Your task to perform on an android device: change the upload size in google photos Image 0: 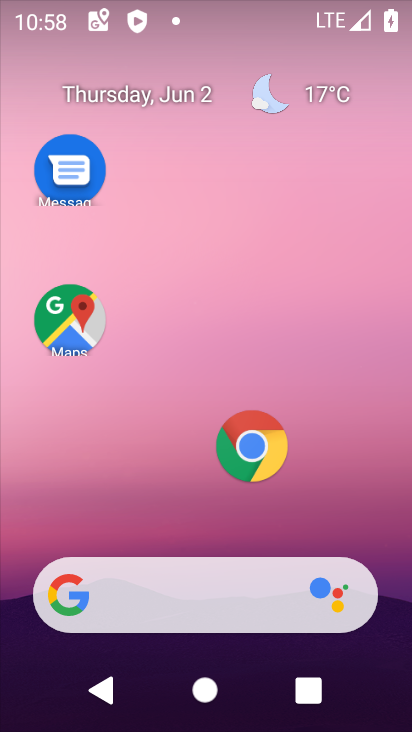
Step 0: press home button
Your task to perform on an android device: change the upload size in google photos Image 1: 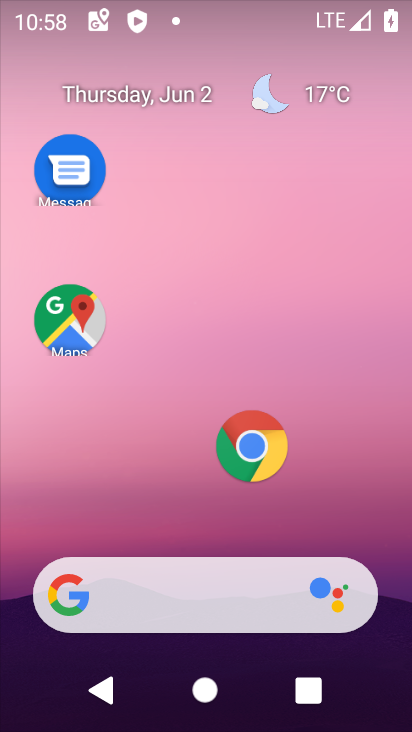
Step 1: drag from (359, 531) to (363, 57)
Your task to perform on an android device: change the upload size in google photos Image 2: 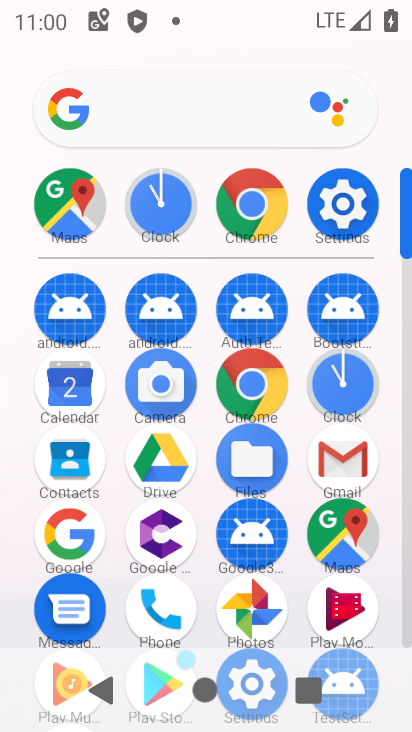
Step 2: click (270, 601)
Your task to perform on an android device: change the upload size in google photos Image 3: 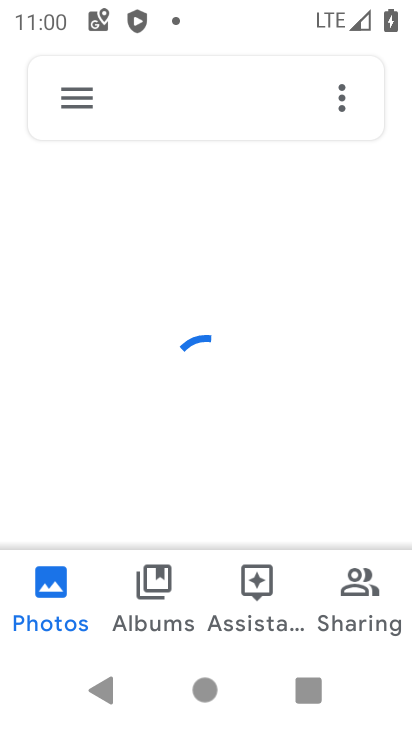
Step 3: click (159, 107)
Your task to perform on an android device: change the upload size in google photos Image 4: 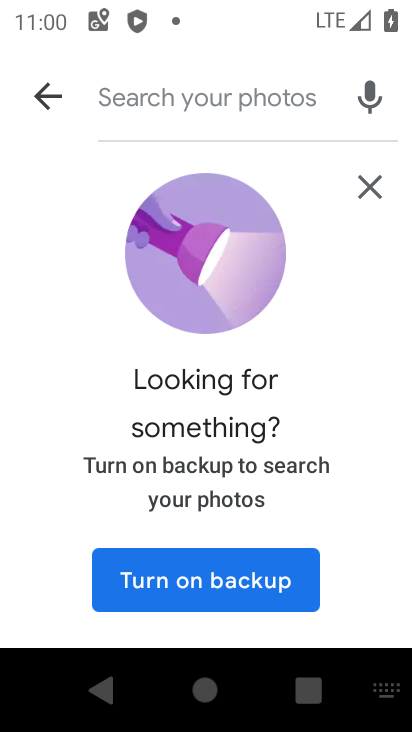
Step 4: click (364, 192)
Your task to perform on an android device: change the upload size in google photos Image 5: 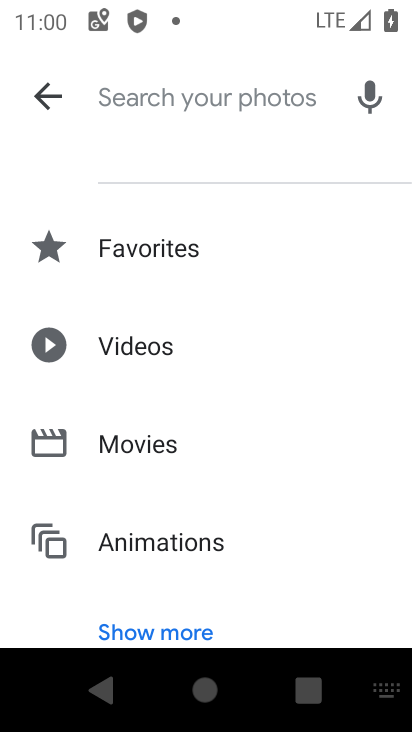
Step 5: click (63, 77)
Your task to perform on an android device: change the upload size in google photos Image 6: 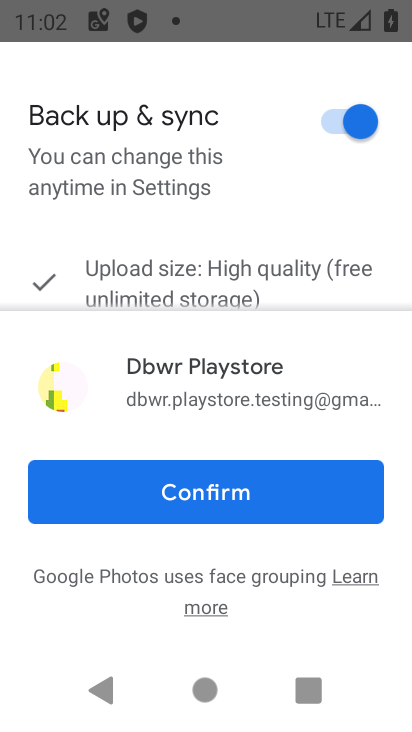
Step 6: click (50, 482)
Your task to perform on an android device: change the upload size in google photos Image 7: 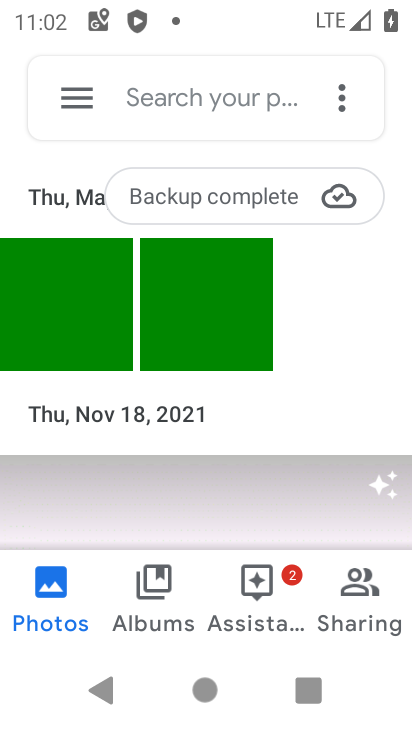
Step 7: click (75, 99)
Your task to perform on an android device: change the upload size in google photos Image 8: 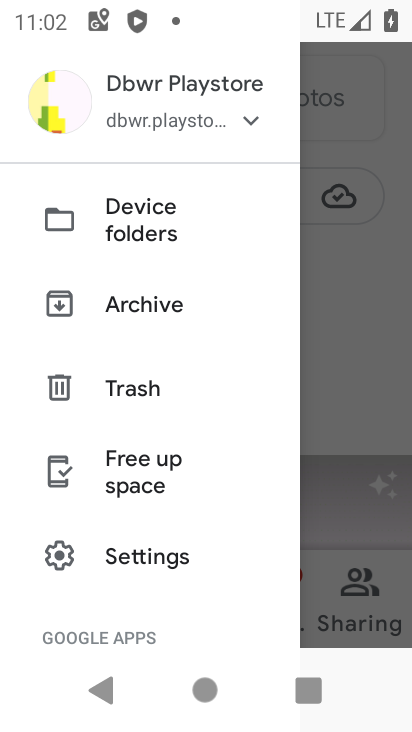
Step 8: drag from (127, 427) to (186, 68)
Your task to perform on an android device: change the upload size in google photos Image 9: 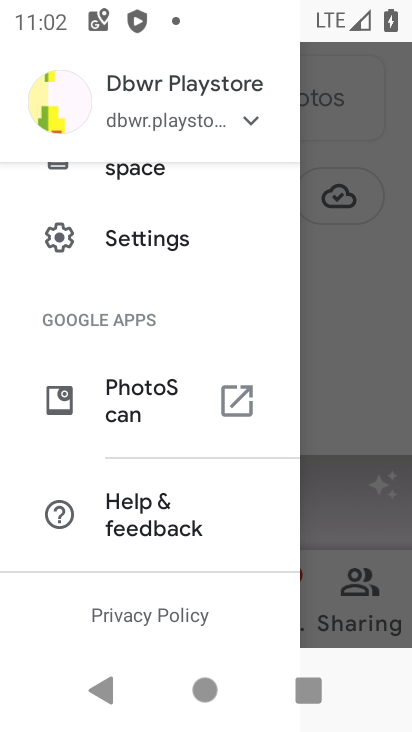
Step 9: click (150, 256)
Your task to perform on an android device: change the upload size in google photos Image 10: 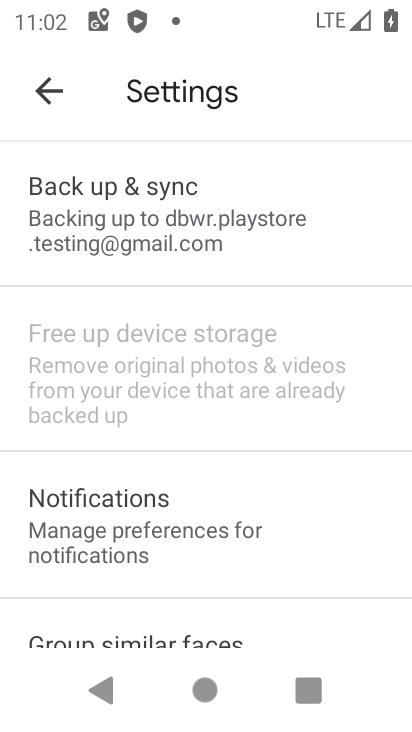
Step 10: click (159, 229)
Your task to perform on an android device: change the upload size in google photos Image 11: 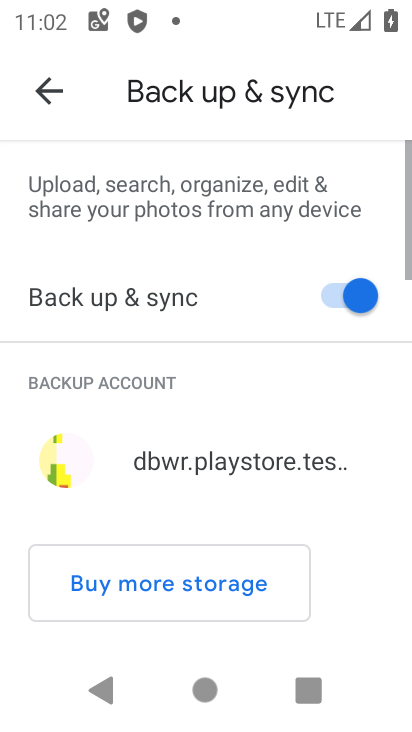
Step 11: drag from (187, 381) to (394, 490)
Your task to perform on an android device: change the upload size in google photos Image 12: 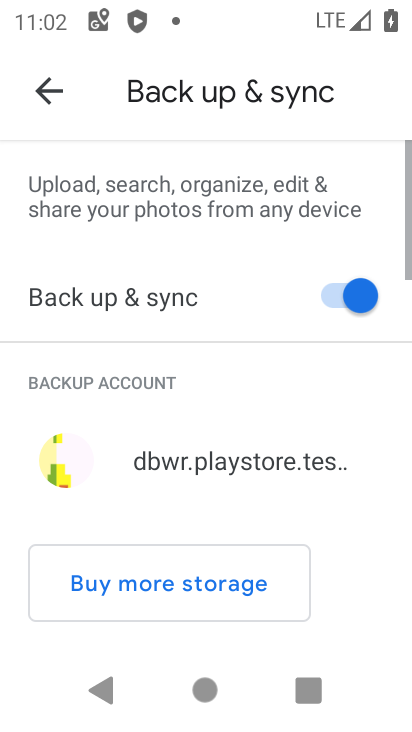
Step 12: drag from (144, 521) to (155, 143)
Your task to perform on an android device: change the upload size in google photos Image 13: 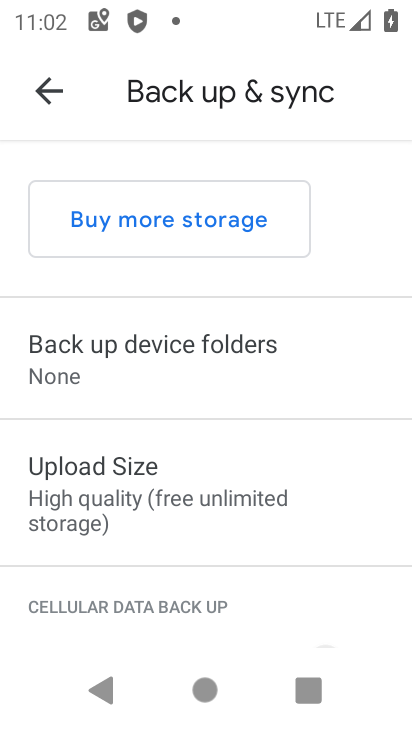
Step 13: click (145, 512)
Your task to perform on an android device: change the upload size in google photos Image 14: 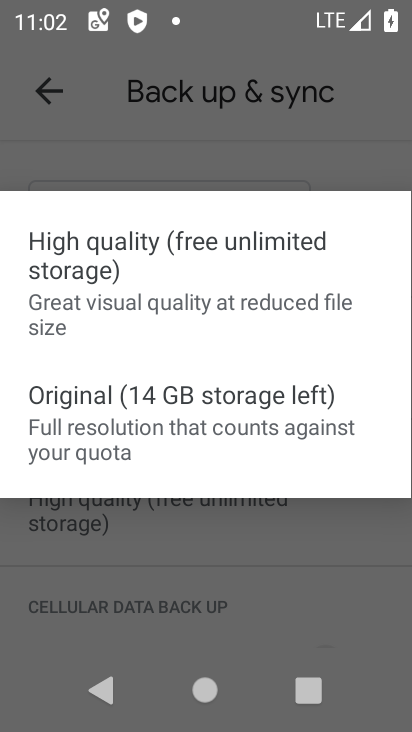
Step 14: click (167, 415)
Your task to perform on an android device: change the upload size in google photos Image 15: 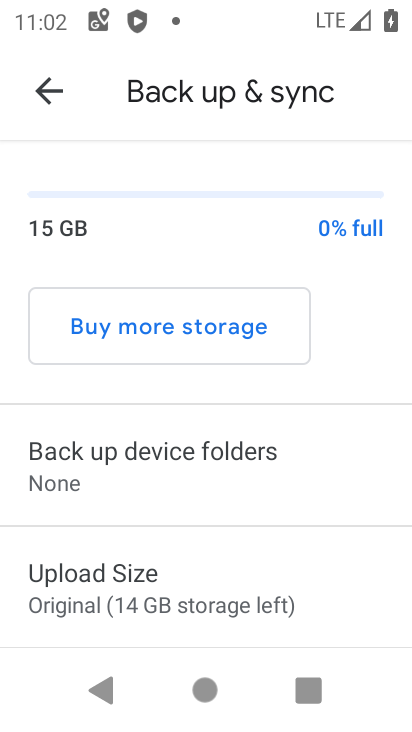
Step 15: task complete